Your task to perform on an android device: Search for Mexican restaurants on Maps Image 0: 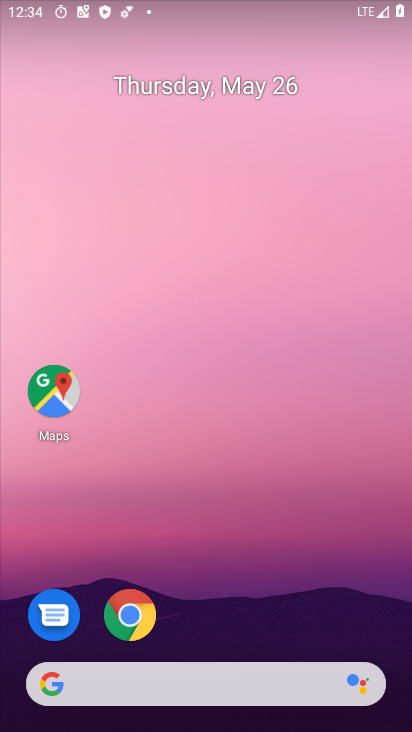
Step 0: click (55, 394)
Your task to perform on an android device: Search for Mexican restaurants on Maps Image 1: 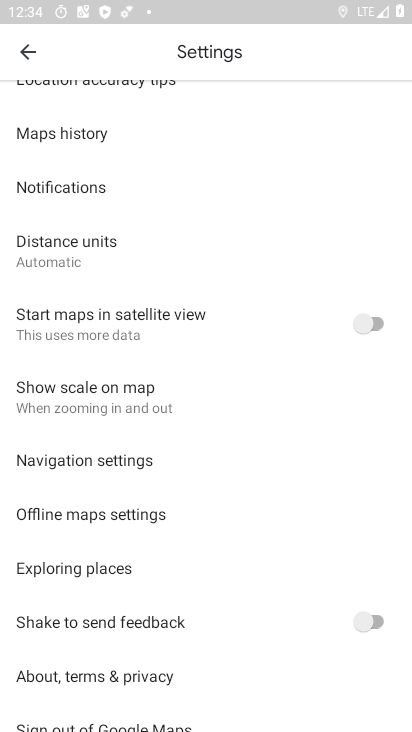
Step 1: click (14, 49)
Your task to perform on an android device: Search for Mexican restaurants on Maps Image 2: 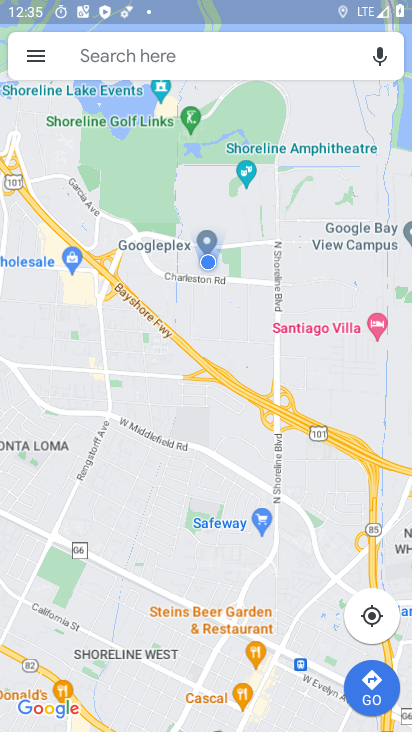
Step 2: click (143, 57)
Your task to perform on an android device: Search for Mexican restaurants on Maps Image 3: 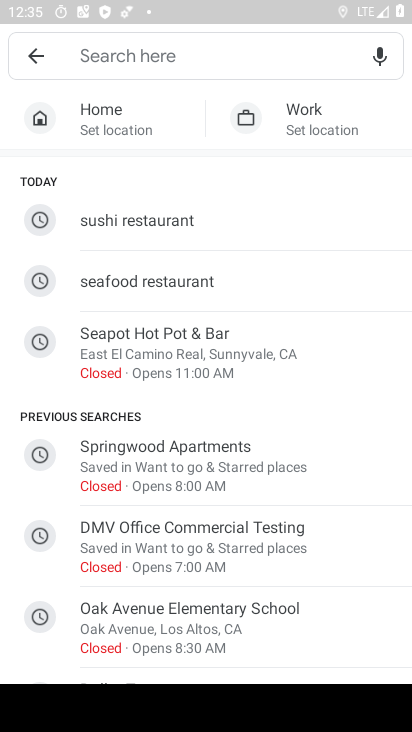
Step 3: type "Mexican restaurants"
Your task to perform on an android device: Search for Mexican restaurants on Maps Image 4: 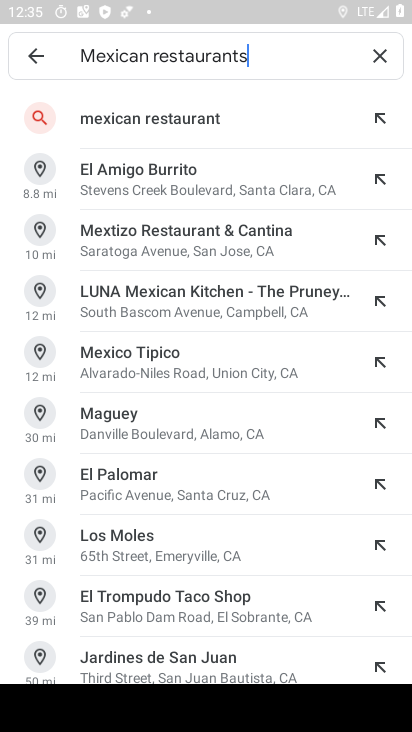
Step 4: click (231, 131)
Your task to perform on an android device: Search for Mexican restaurants on Maps Image 5: 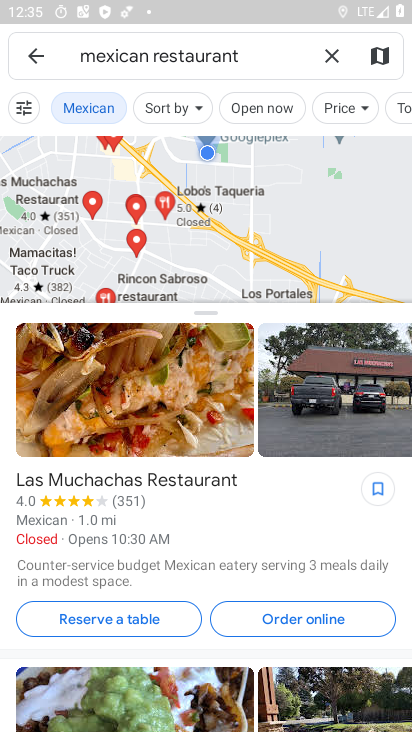
Step 5: task complete